Your task to perform on an android device: make emails show in primary in the gmail app Image 0: 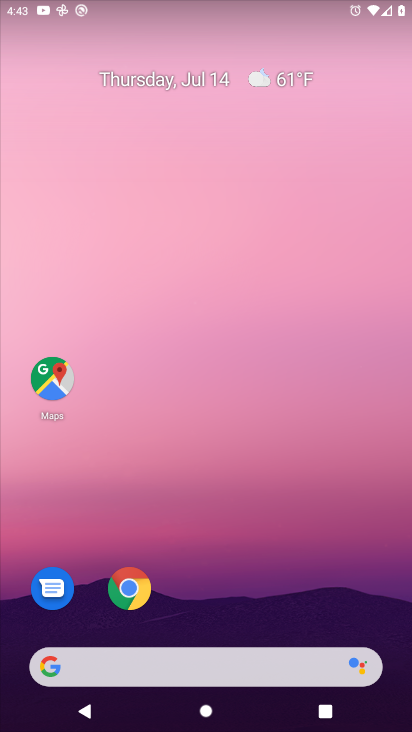
Step 0: press home button
Your task to perform on an android device: make emails show in primary in the gmail app Image 1: 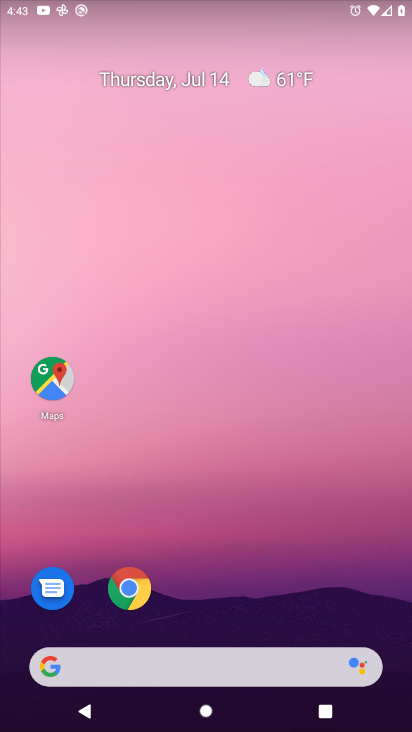
Step 1: drag from (199, 619) to (114, 50)
Your task to perform on an android device: make emails show in primary in the gmail app Image 2: 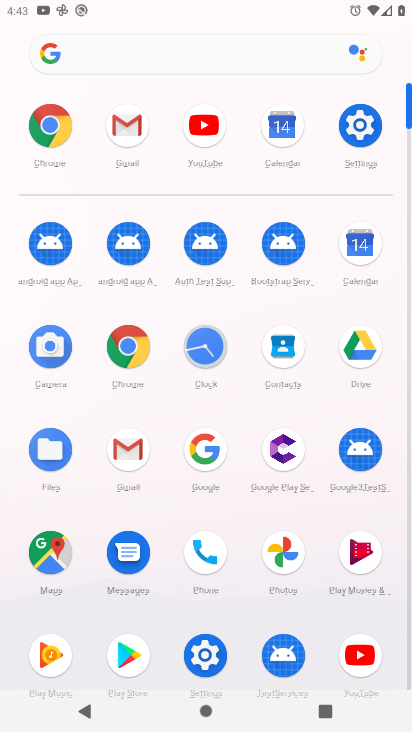
Step 2: click (129, 136)
Your task to perform on an android device: make emails show in primary in the gmail app Image 3: 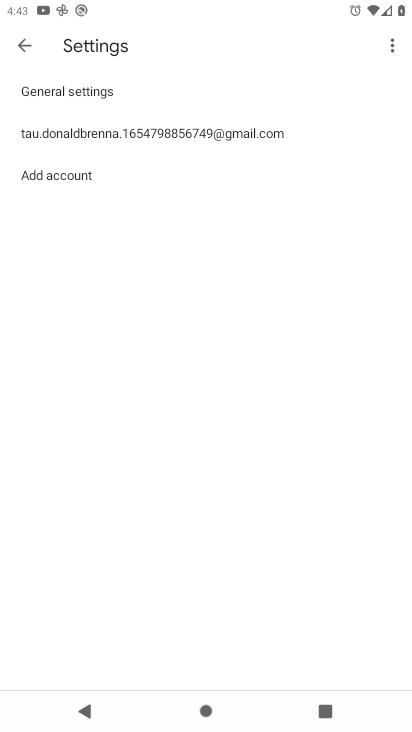
Step 3: click (21, 47)
Your task to perform on an android device: make emails show in primary in the gmail app Image 4: 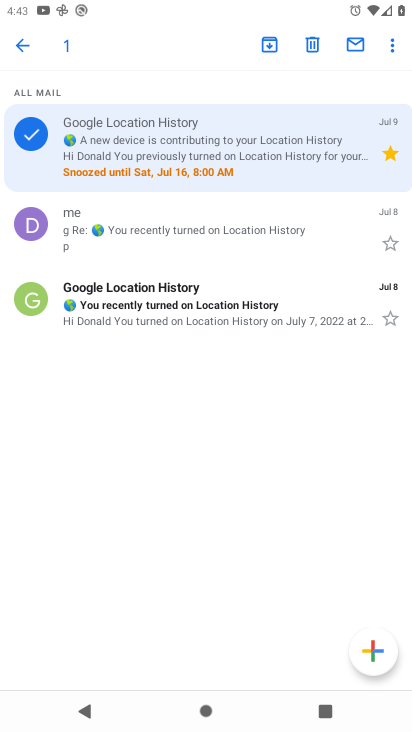
Step 4: click (18, 46)
Your task to perform on an android device: make emails show in primary in the gmail app Image 5: 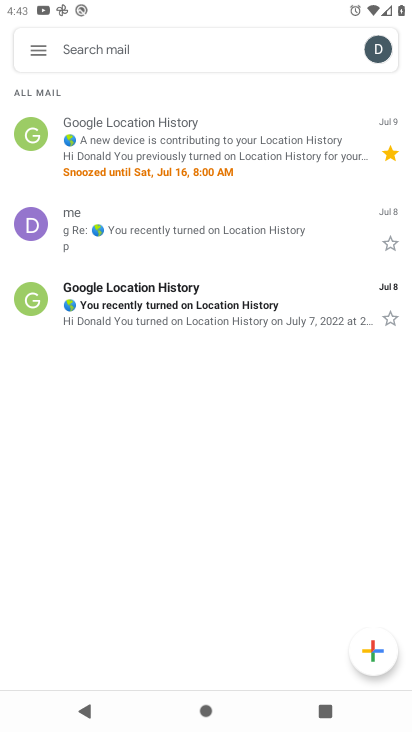
Step 5: click (18, 46)
Your task to perform on an android device: make emails show in primary in the gmail app Image 6: 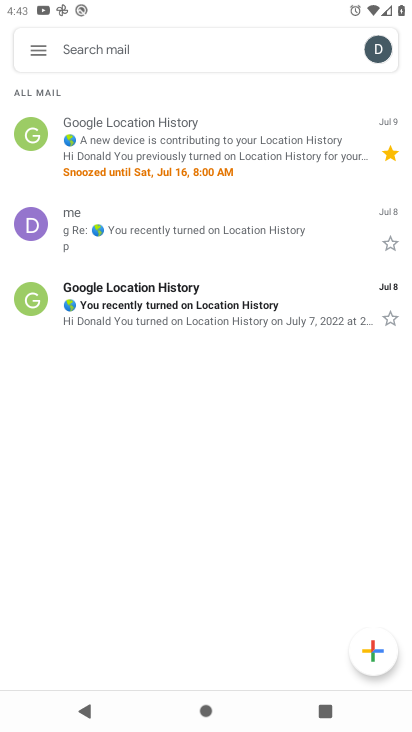
Step 6: click (29, 44)
Your task to perform on an android device: make emails show in primary in the gmail app Image 7: 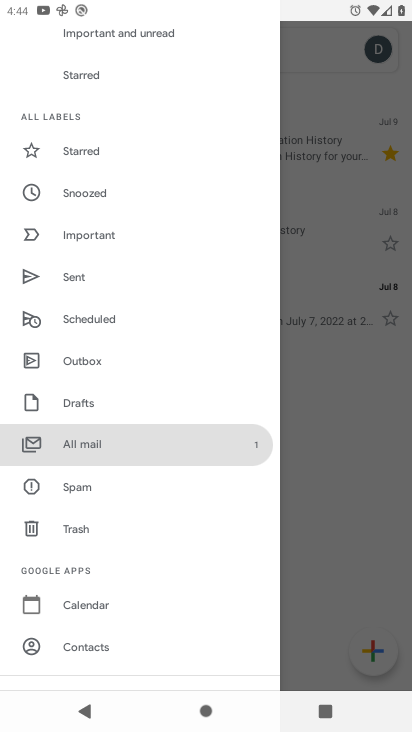
Step 7: drag from (240, 533) to (240, 155)
Your task to perform on an android device: make emails show in primary in the gmail app Image 8: 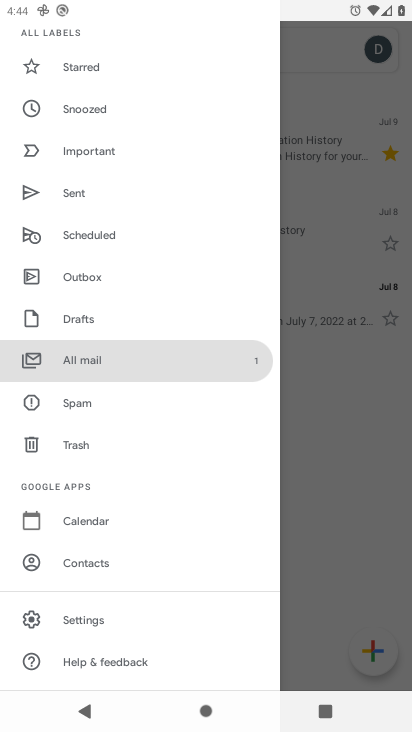
Step 8: click (77, 619)
Your task to perform on an android device: make emails show in primary in the gmail app Image 9: 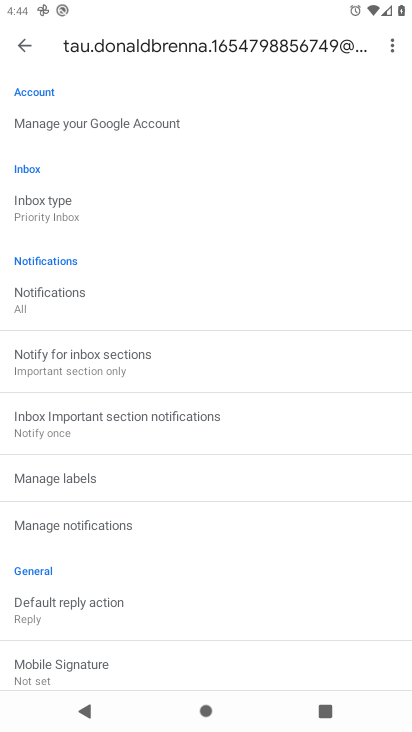
Step 9: task complete